Your task to perform on an android device: Open settings Image 0: 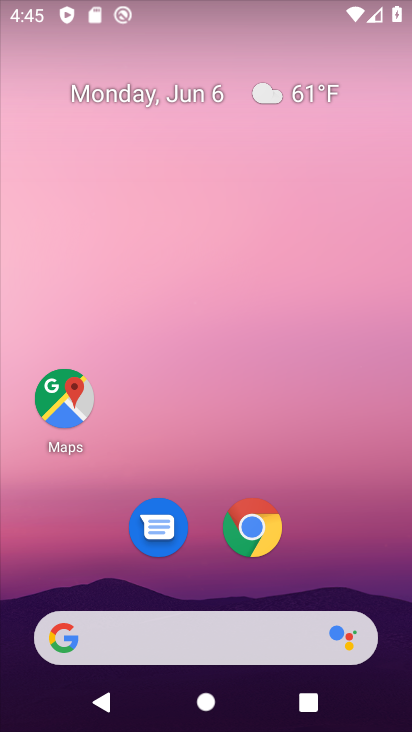
Step 0: drag from (105, 549) to (189, 110)
Your task to perform on an android device: Open settings Image 1: 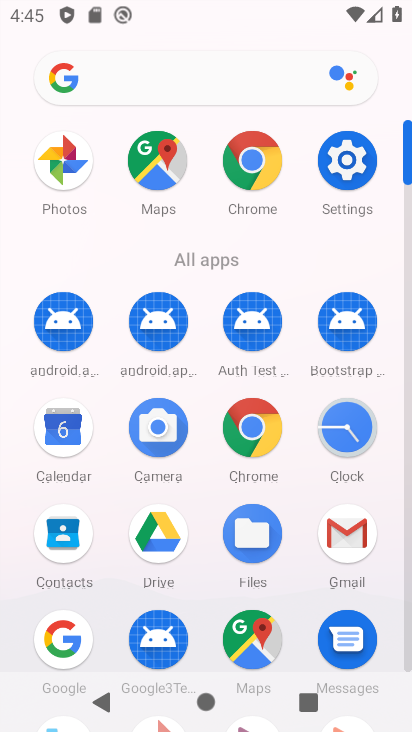
Step 1: drag from (252, 537) to (303, 273)
Your task to perform on an android device: Open settings Image 2: 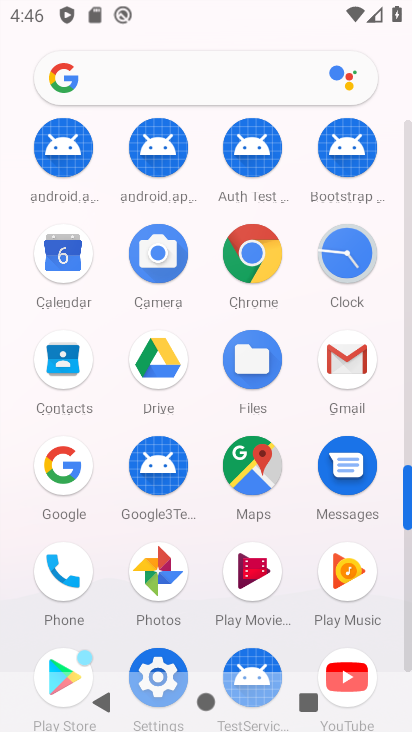
Step 2: click (165, 664)
Your task to perform on an android device: Open settings Image 3: 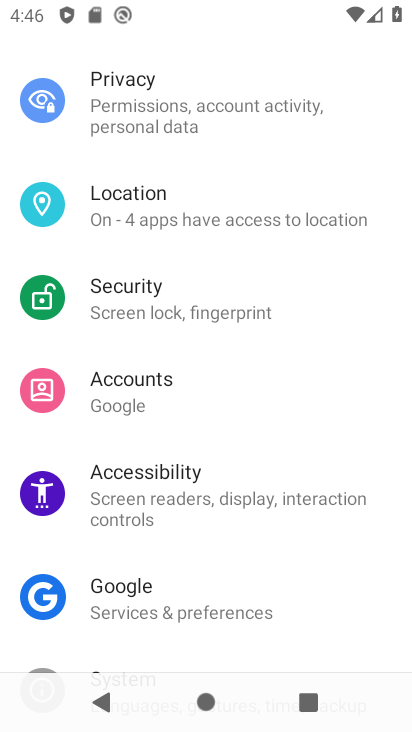
Step 3: task complete